Your task to perform on an android device: toggle priority inbox in the gmail app Image 0: 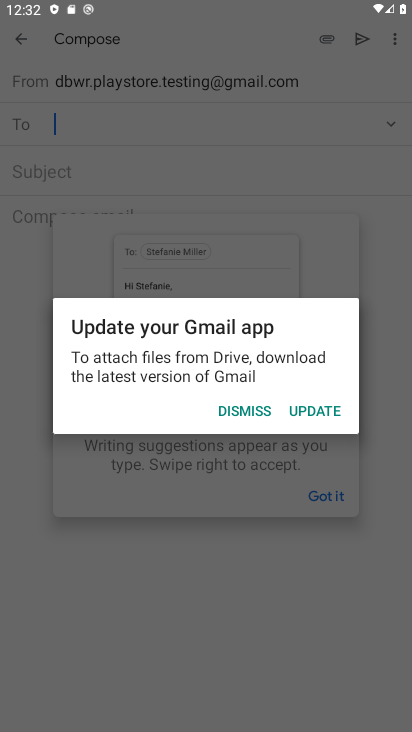
Step 0: press home button
Your task to perform on an android device: toggle priority inbox in the gmail app Image 1: 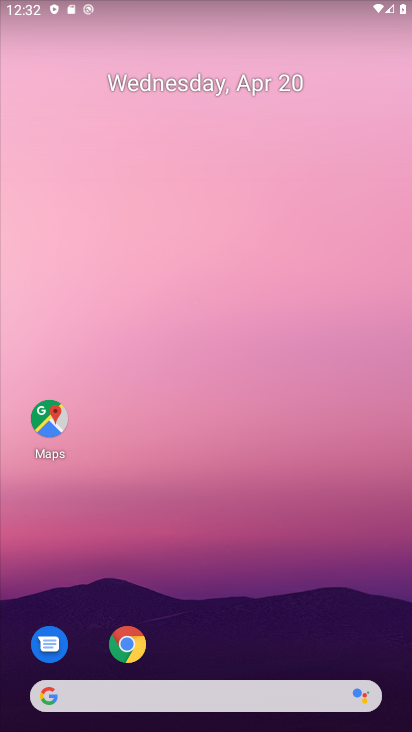
Step 1: drag from (311, 652) to (294, 2)
Your task to perform on an android device: toggle priority inbox in the gmail app Image 2: 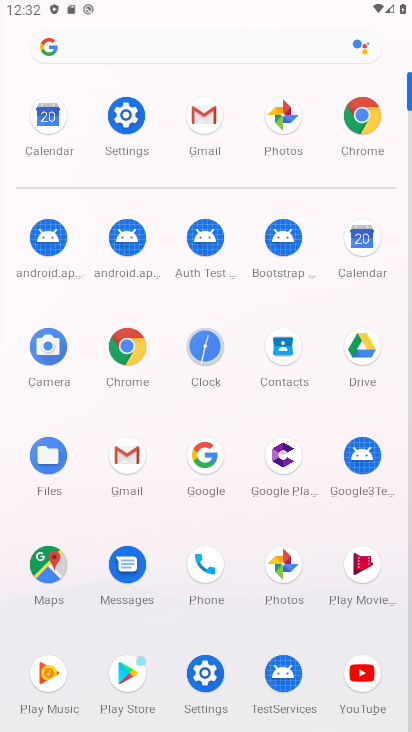
Step 2: click (205, 114)
Your task to perform on an android device: toggle priority inbox in the gmail app Image 3: 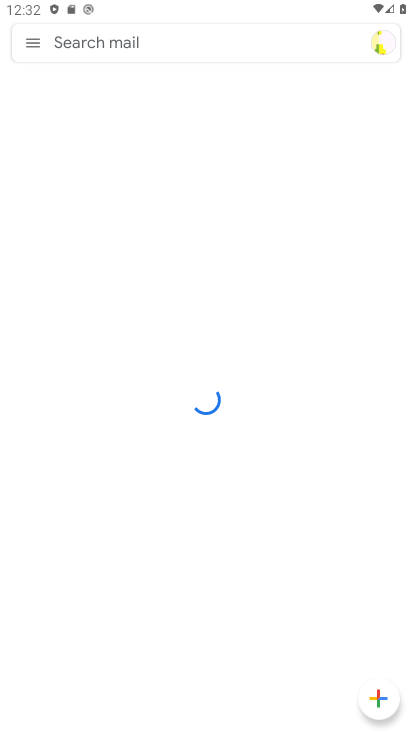
Step 3: click (36, 44)
Your task to perform on an android device: toggle priority inbox in the gmail app Image 4: 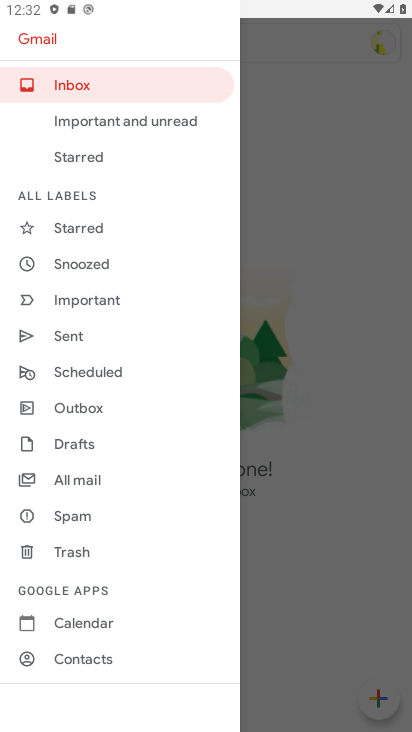
Step 4: drag from (136, 626) to (139, 429)
Your task to perform on an android device: toggle priority inbox in the gmail app Image 5: 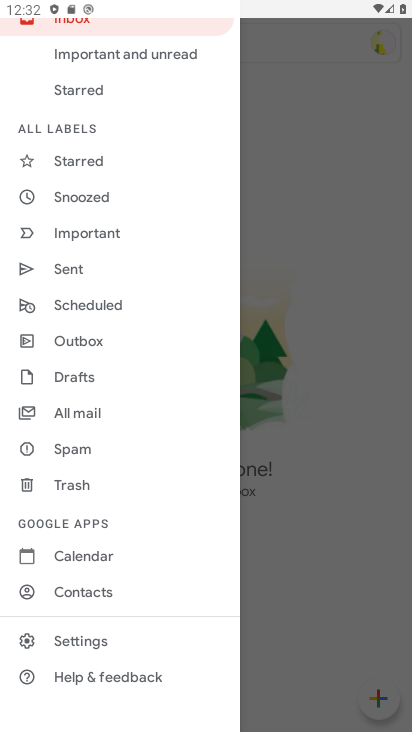
Step 5: click (97, 636)
Your task to perform on an android device: toggle priority inbox in the gmail app Image 6: 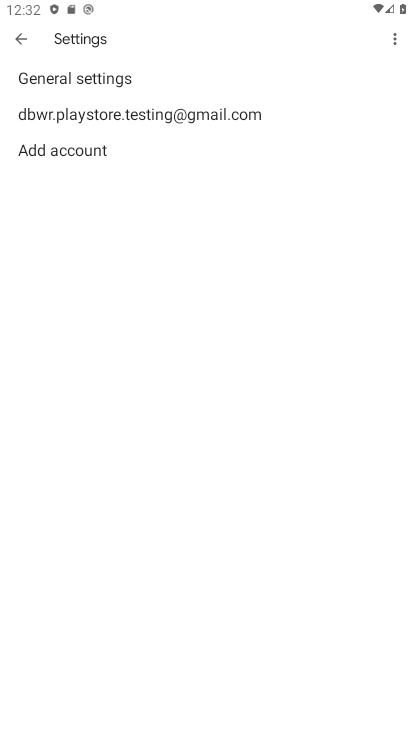
Step 6: click (237, 107)
Your task to perform on an android device: toggle priority inbox in the gmail app Image 7: 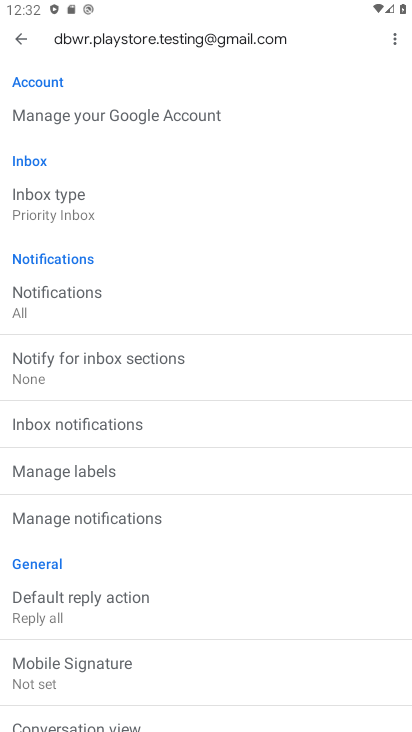
Step 7: click (71, 197)
Your task to perform on an android device: toggle priority inbox in the gmail app Image 8: 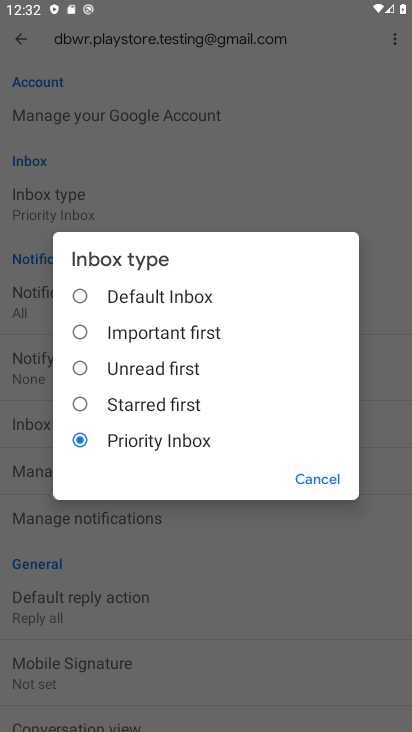
Step 8: click (82, 289)
Your task to perform on an android device: toggle priority inbox in the gmail app Image 9: 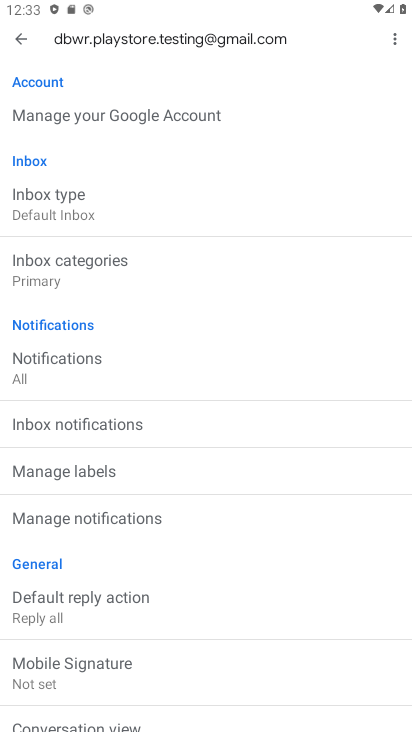
Step 9: task complete